Your task to perform on an android device: What's a good restaurant in San Francisco? Image 0: 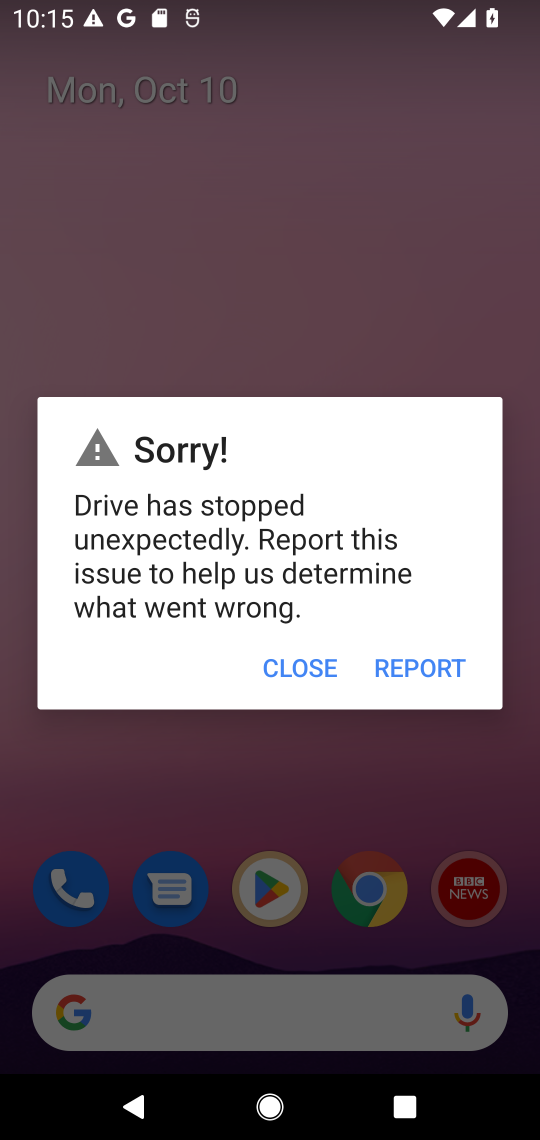
Step 0: click (272, 658)
Your task to perform on an android device: What's a good restaurant in San Francisco? Image 1: 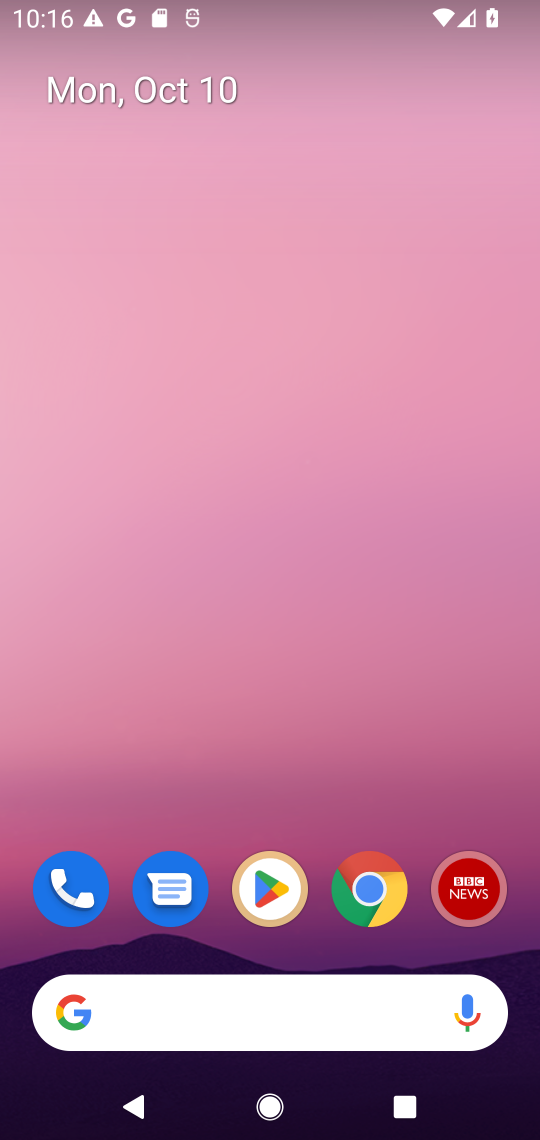
Step 1: type "good restaurant in San Francisco"
Your task to perform on an android device: What's a good restaurant in San Francisco? Image 2: 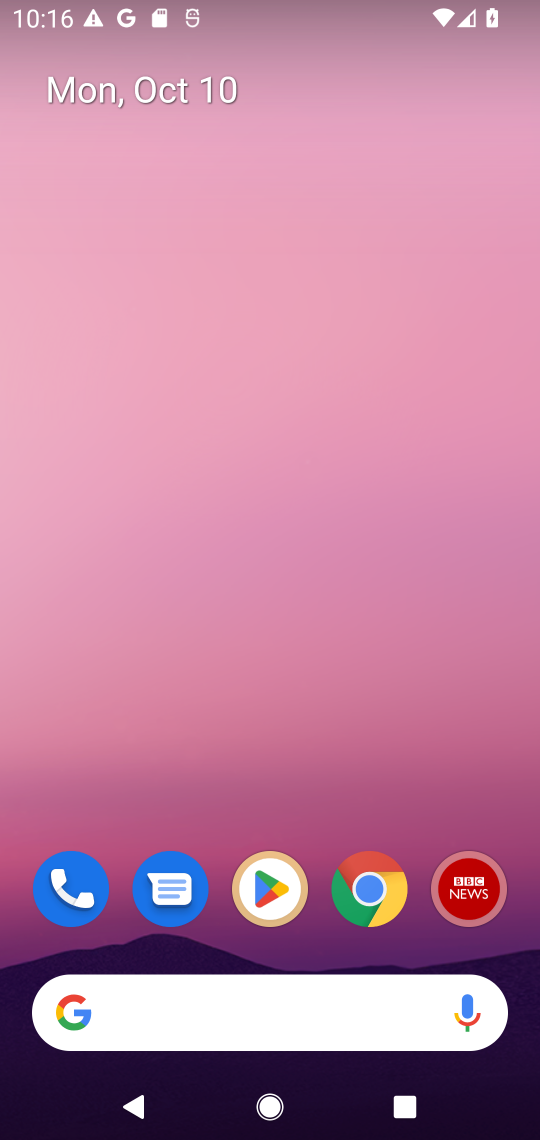
Step 2: click (389, 1009)
Your task to perform on an android device: What's a good restaurant in San Francisco? Image 3: 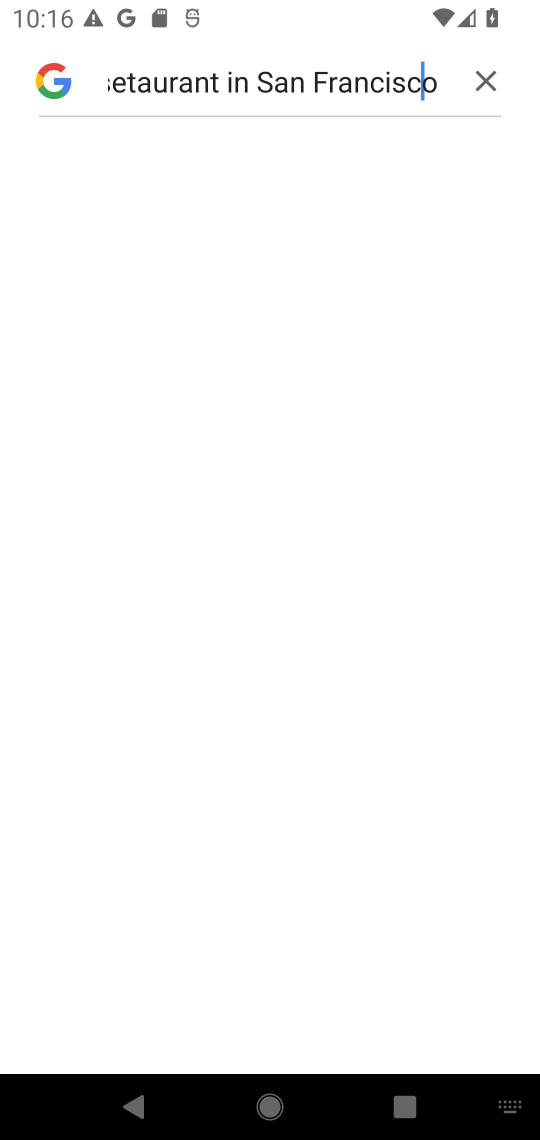
Step 3: type ""
Your task to perform on an android device: What's a good restaurant in San Francisco? Image 4: 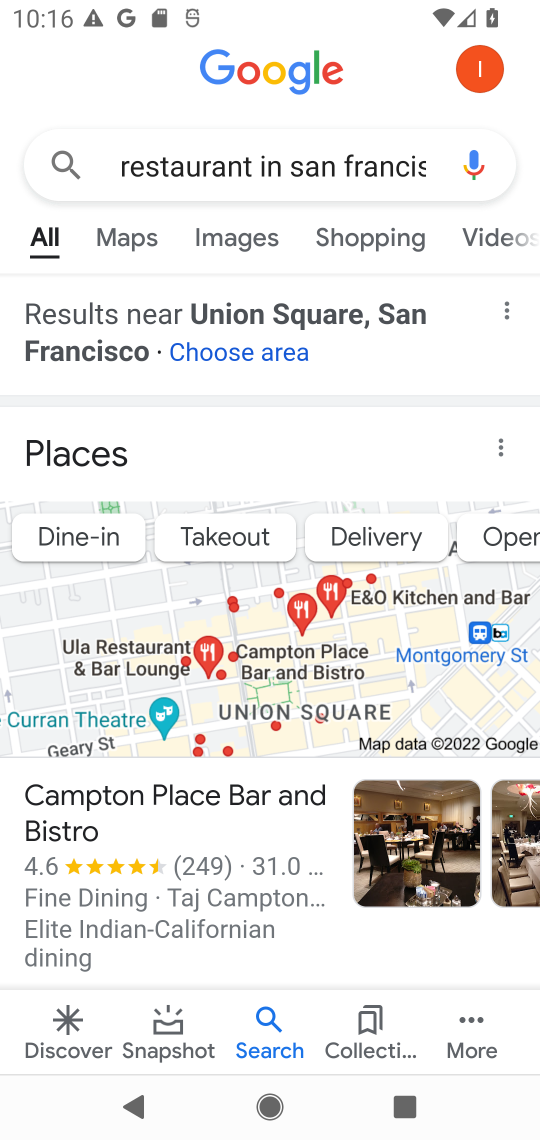
Step 4: drag from (204, 913) to (281, 566)
Your task to perform on an android device: What's a good restaurant in San Francisco? Image 5: 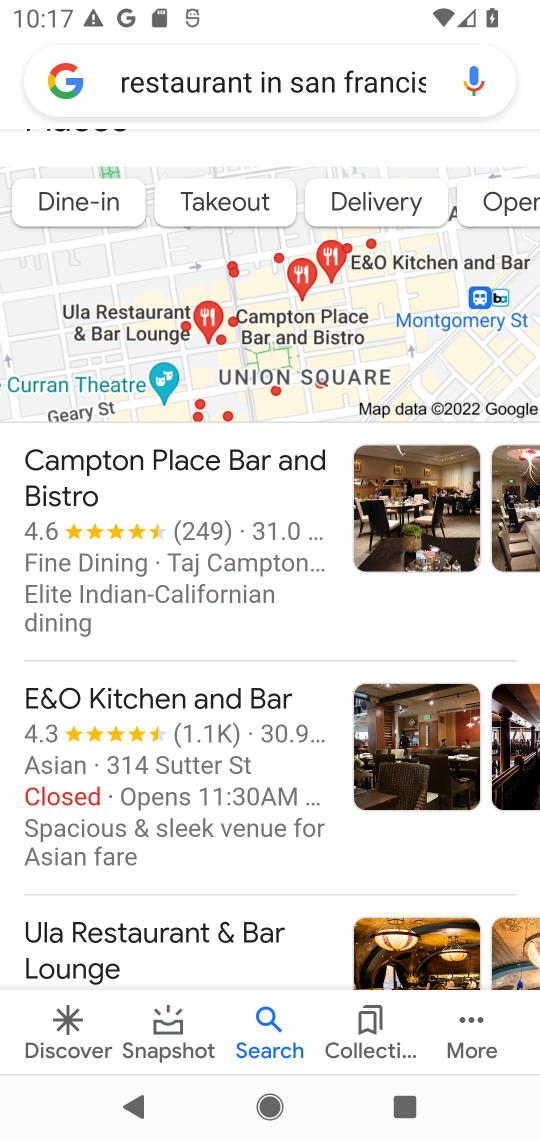
Step 5: drag from (229, 724) to (231, 657)
Your task to perform on an android device: What's a good restaurant in San Francisco? Image 6: 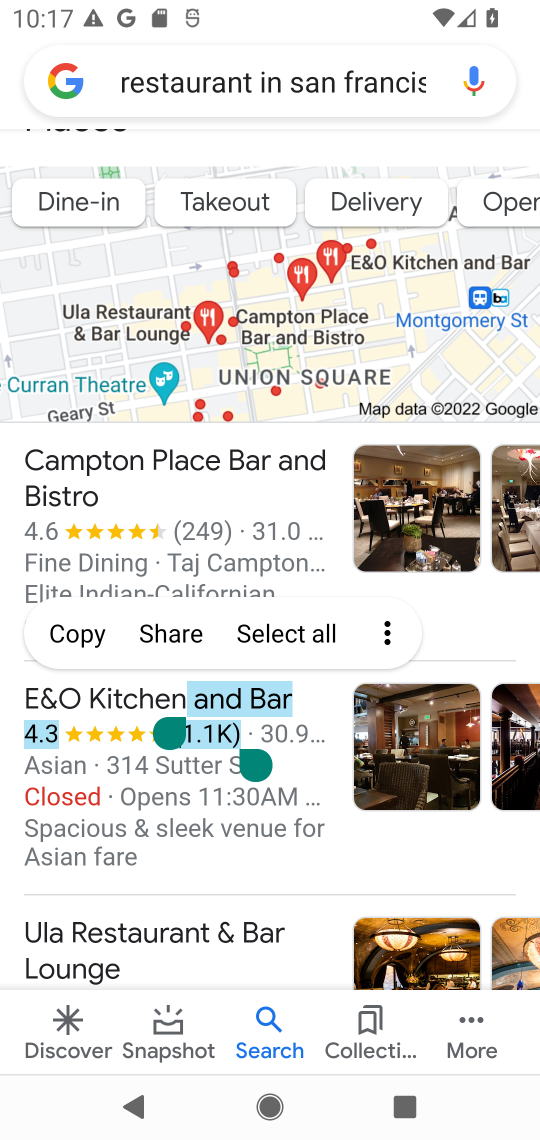
Step 6: click (335, 657)
Your task to perform on an android device: What's a good restaurant in San Francisco? Image 7: 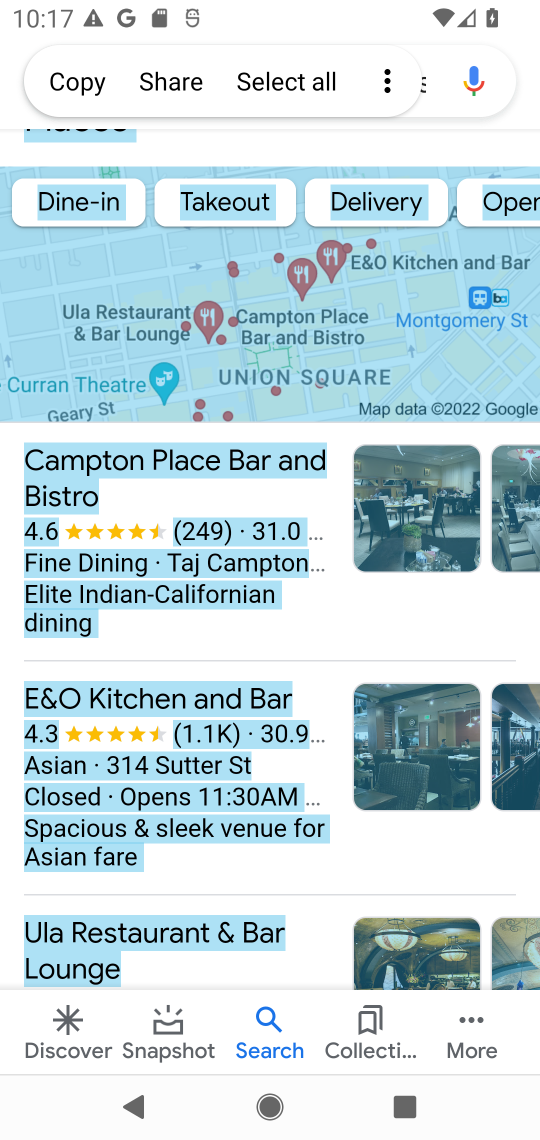
Step 7: click (339, 705)
Your task to perform on an android device: What's a good restaurant in San Francisco? Image 8: 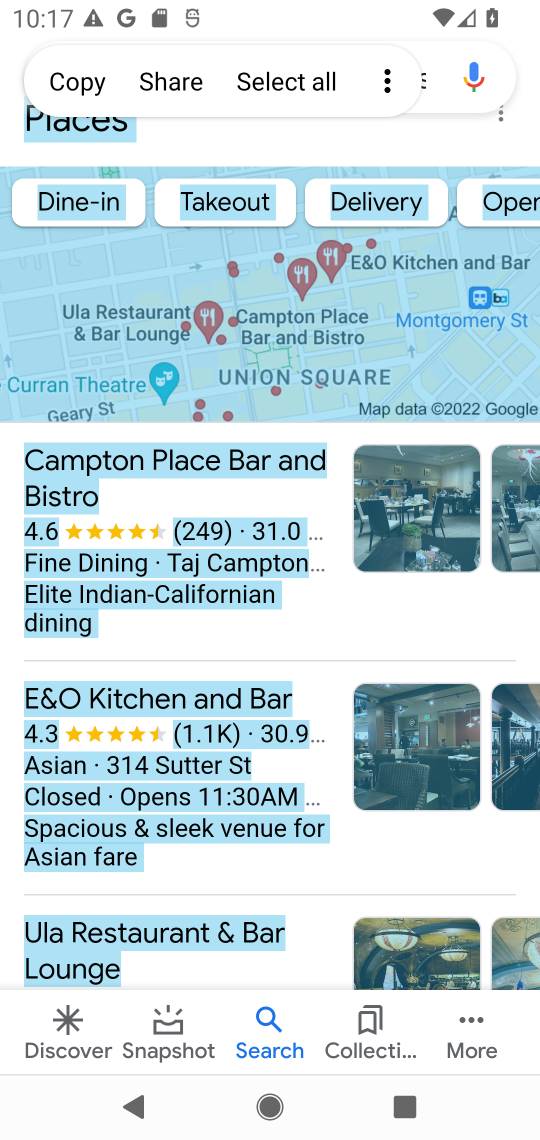
Step 8: click (339, 706)
Your task to perform on an android device: What's a good restaurant in San Francisco? Image 9: 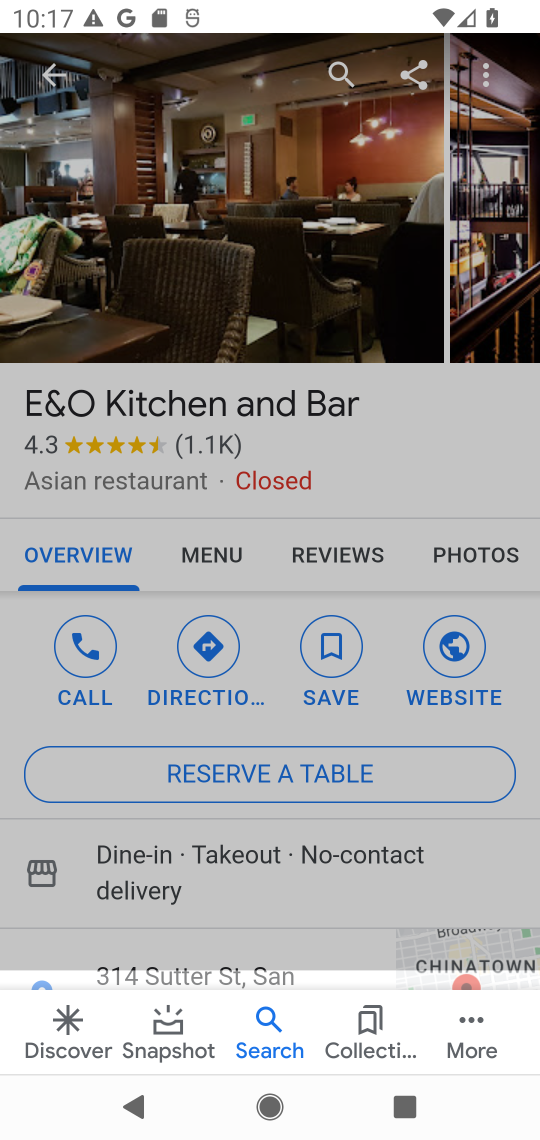
Step 9: drag from (268, 837) to (274, 680)
Your task to perform on an android device: What's a good restaurant in San Francisco? Image 10: 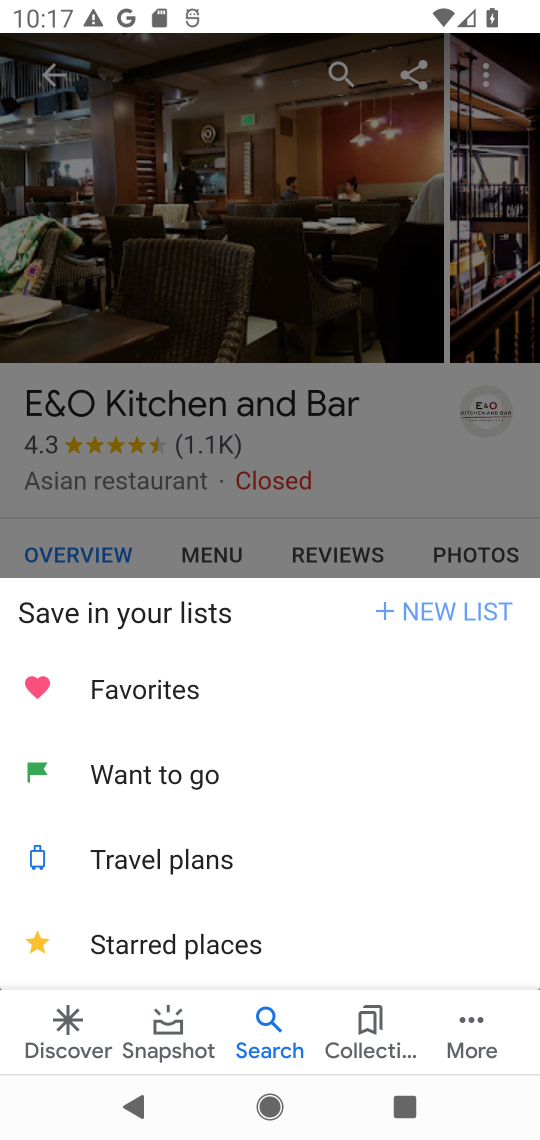
Step 10: click (386, 507)
Your task to perform on an android device: What's a good restaurant in San Francisco? Image 11: 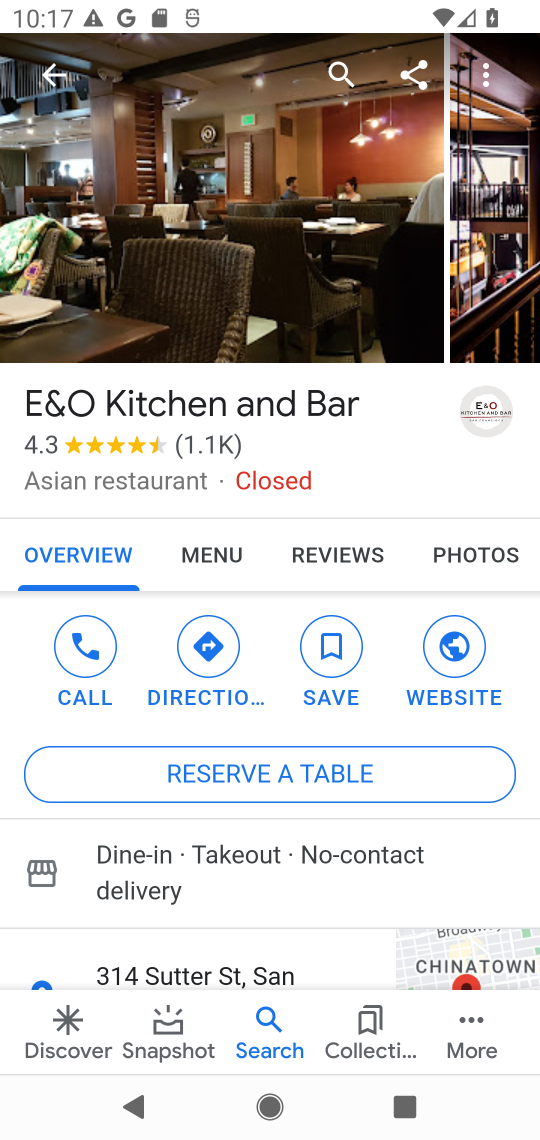
Step 11: task complete